Your task to perform on an android device: Open maps Image 0: 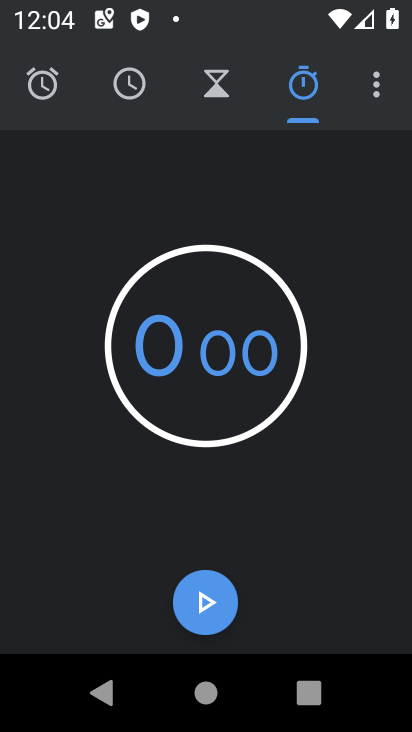
Step 0: press home button
Your task to perform on an android device: Open maps Image 1: 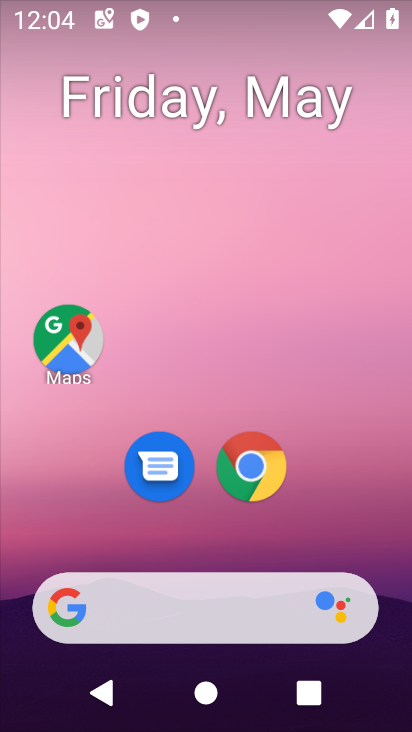
Step 1: drag from (394, 588) to (274, 26)
Your task to perform on an android device: Open maps Image 2: 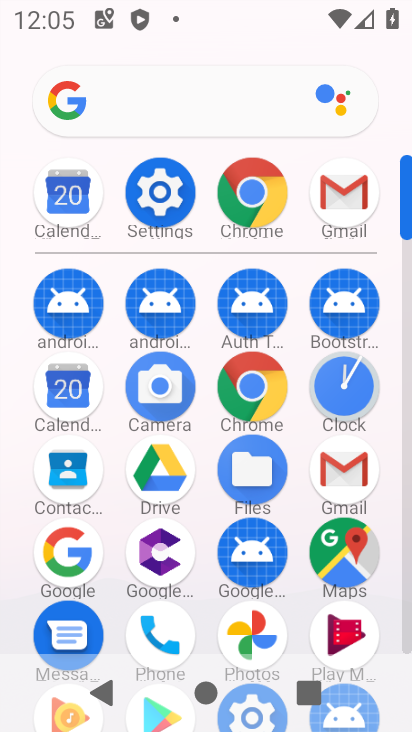
Step 2: click (339, 531)
Your task to perform on an android device: Open maps Image 3: 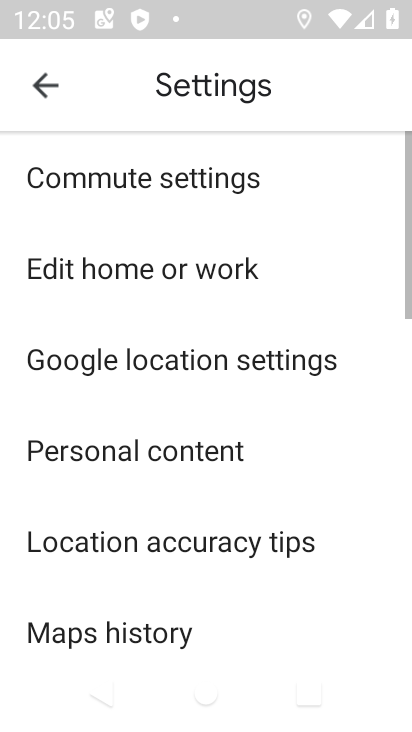
Step 3: task complete